Your task to perform on an android device: Go to Wikipedia Image 0: 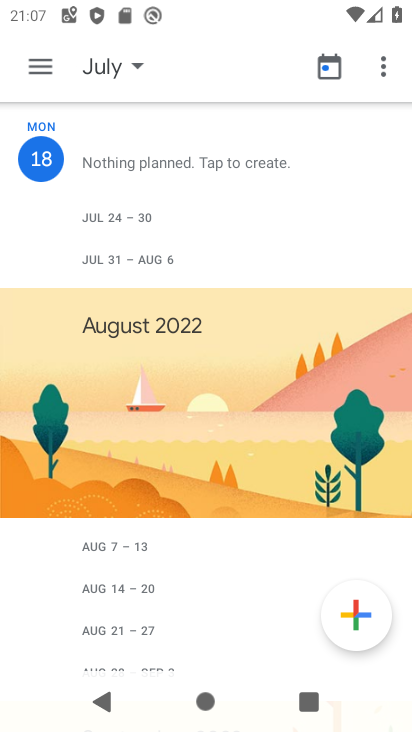
Step 0: press home button
Your task to perform on an android device: Go to Wikipedia Image 1: 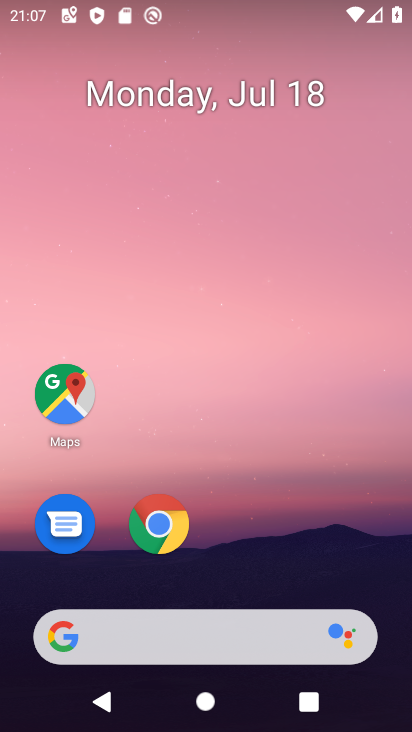
Step 1: click (149, 528)
Your task to perform on an android device: Go to Wikipedia Image 2: 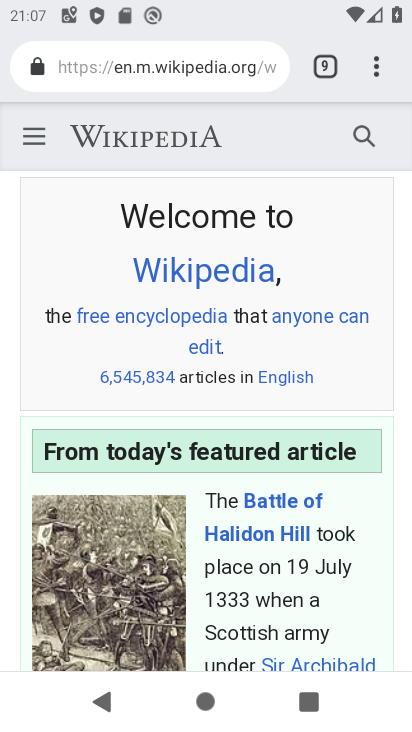
Step 2: task complete